Your task to perform on an android device: Open Google Chrome and open the bookmarks view Image 0: 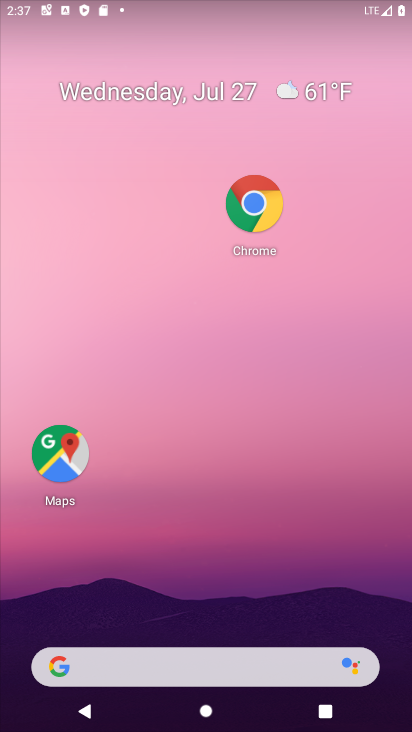
Step 0: click (251, 196)
Your task to perform on an android device: Open Google Chrome and open the bookmarks view Image 1: 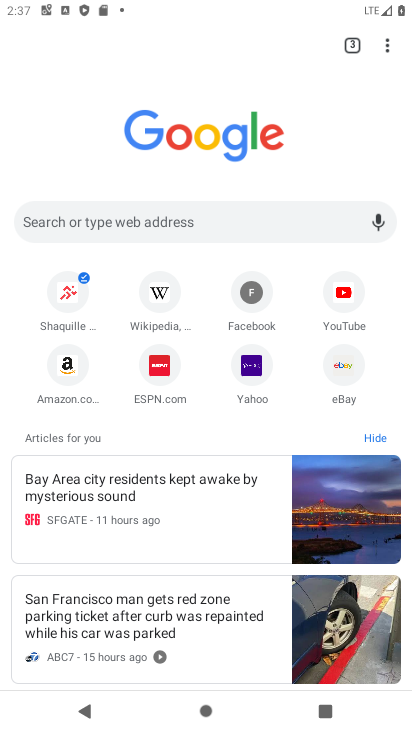
Step 1: click (395, 53)
Your task to perform on an android device: Open Google Chrome and open the bookmarks view Image 2: 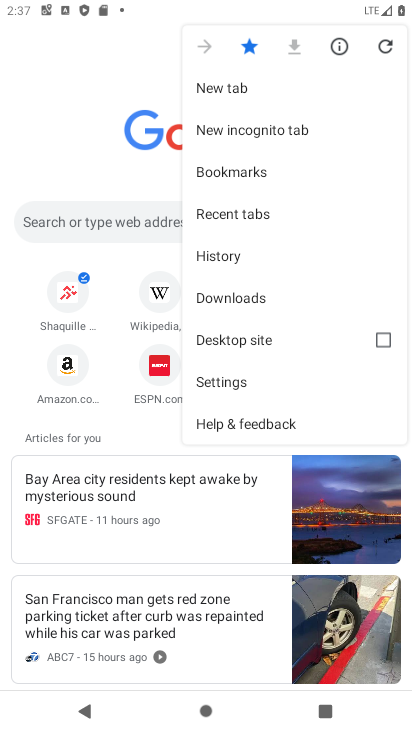
Step 2: click (244, 380)
Your task to perform on an android device: Open Google Chrome and open the bookmarks view Image 3: 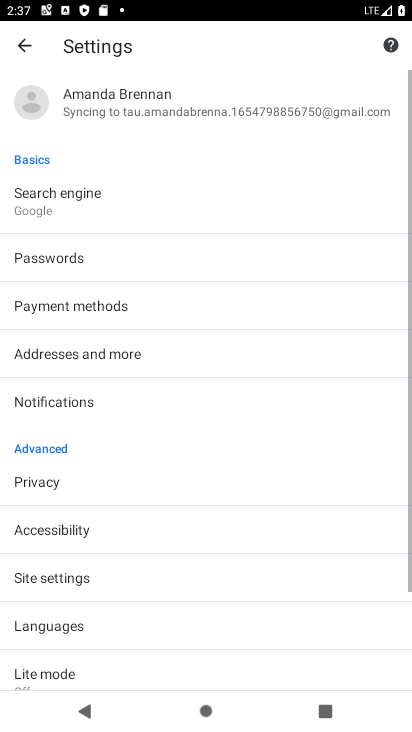
Step 3: click (27, 55)
Your task to perform on an android device: Open Google Chrome and open the bookmarks view Image 4: 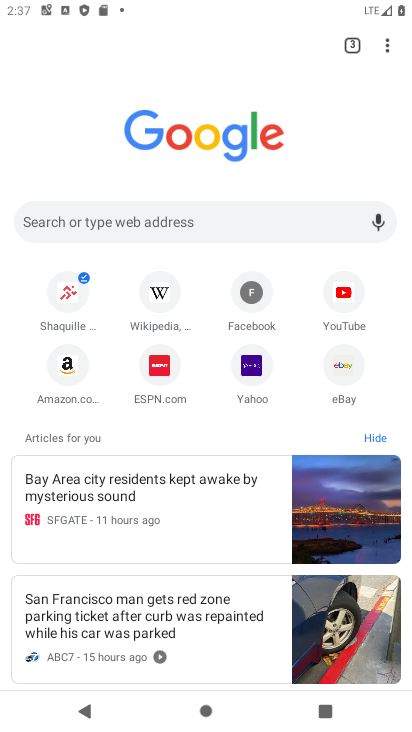
Step 4: click (383, 39)
Your task to perform on an android device: Open Google Chrome and open the bookmarks view Image 5: 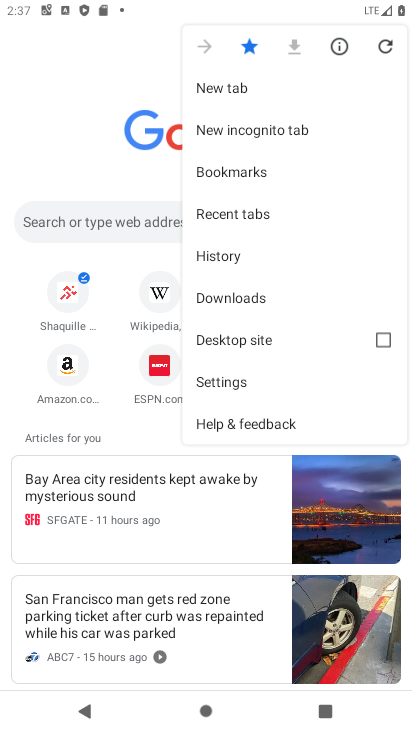
Step 5: click (280, 171)
Your task to perform on an android device: Open Google Chrome and open the bookmarks view Image 6: 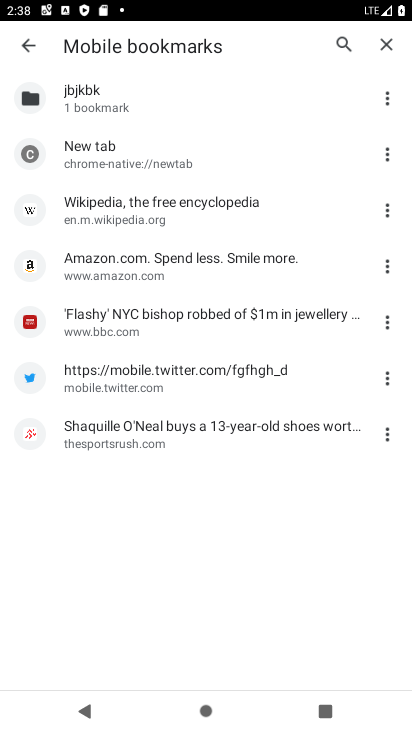
Step 6: task complete